Your task to perform on an android device: View the shopping cart on amazon. Add "logitech g pro" to the cart on amazon, then select checkout. Image 0: 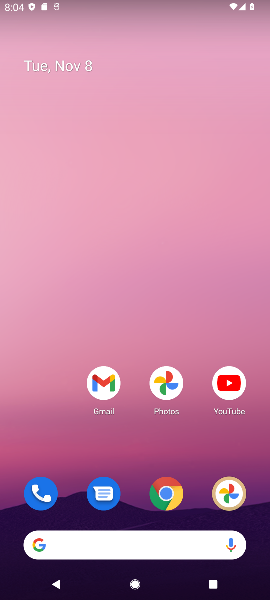
Step 0: click (165, 497)
Your task to perform on an android device: View the shopping cart on amazon. Add "logitech g pro" to the cart on amazon, then select checkout. Image 1: 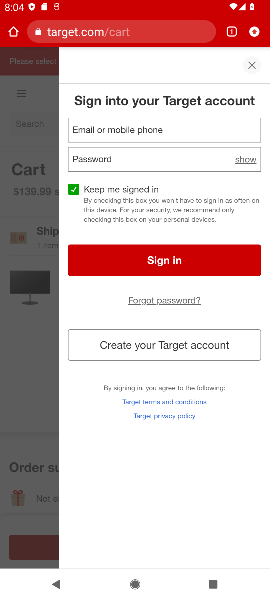
Step 1: click (83, 27)
Your task to perform on an android device: View the shopping cart on amazon. Add "logitech g pro" to the cart on amazon, then select checkout. Image 2: 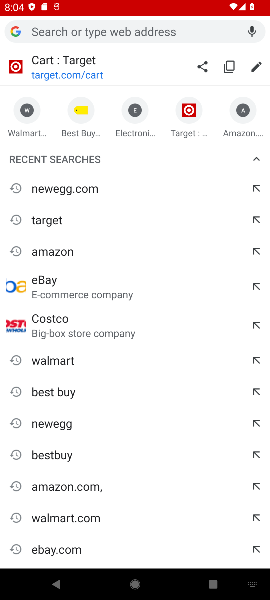
Step 2: click (239, 122)
Your task to perform on an android device: View the shopping cart on amazon. Add "logitech g pro" to the cart on amazon, then select checkout. Image 3: 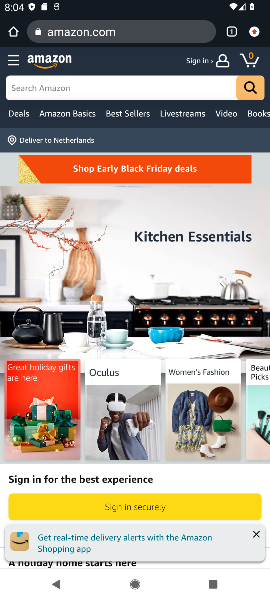
Step 3: click (247, 58)
Your task to perform on an android device: View the shopping cart on amazon. Add "logitech g pro" to the cart on amazon, then select checkout. Image 4: 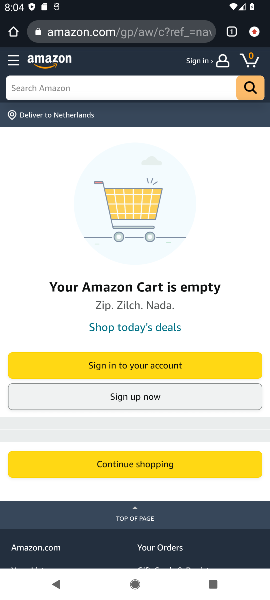
Step 4: click (110, 90)
Your task to perform on an android device: View the shopping cart on amazon. Add "logitech g pro" to the cart on amazon, then select checkout. Image 5: 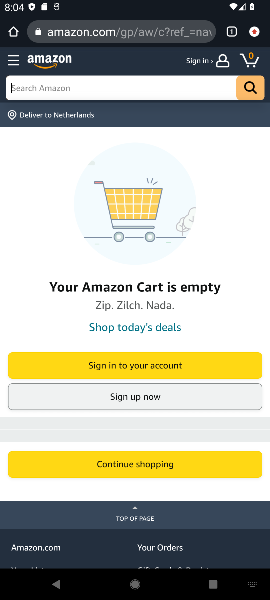
Step 5: type "logitech g pro"
Your task to perform on an android device: View the shopping cart on amazon. Add "logitech g pro" to the cart on amazon, then select checkout. Image 6: 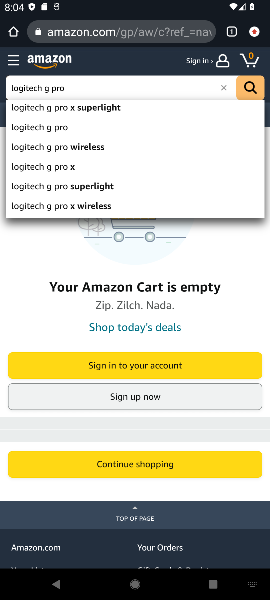
Step 6: click (53, 124)
Your task to perform on an android device: View the shopping cart on amazon. Add "logitech g pro" to the cart on amazon, then select checkout. Image 7: 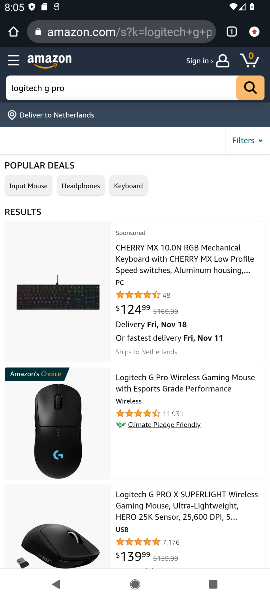
Step 7: click (80, 424)
Your task to perform on an android device: View the shopping cart on amazon. Add "logitech g pro" to the cart on amazon, then select checkout. Image 8: 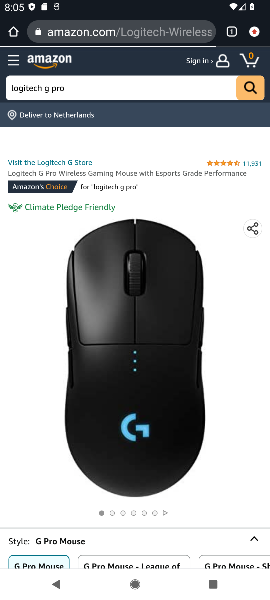
Step 8: drag from (134, 395) to (136, 204)
Your task to perform on an android device: View the shopping cart on amazon. Add "logitech g pro" to the cart on amazon, then select checkout. Image 9: 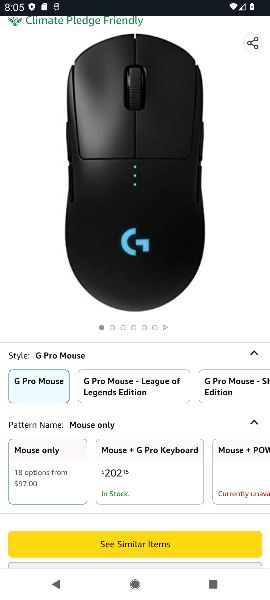
Step 9: press back button
Your task to perform on an android device: View the shopping cart on amazon. Add "logitech g pro" to the cart on amazon, then select checkout. Image 10: 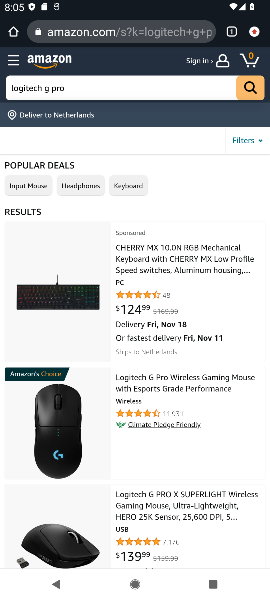
Step 10: drag from (142, 429) to (151, 267)
Your task to perform on an android device: View the shopping cart on amazon. Add "logitech g pro" to the cart on amazon, then select checkout. Image 11: 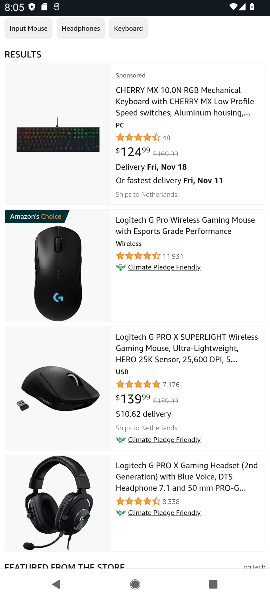
Step 11: click (60, 408)
Your task to perform on an android device: View the shopping cart on amazon. Add "logitech g pro" to the cart on amazon, then select checkout. Image 12: 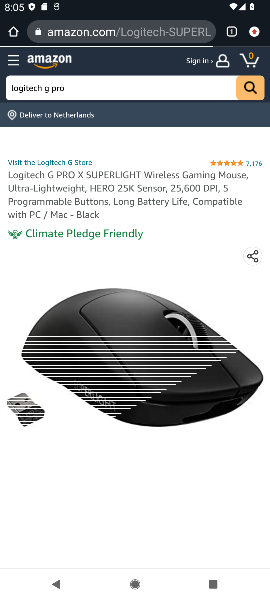
Step 12: drag from (95, 447) to (112, 277)
Your task to perform on an android device: View the shopping cart on amazon. Add "logitech g pro" to the cart on amazon, then select checkout. Image 13: 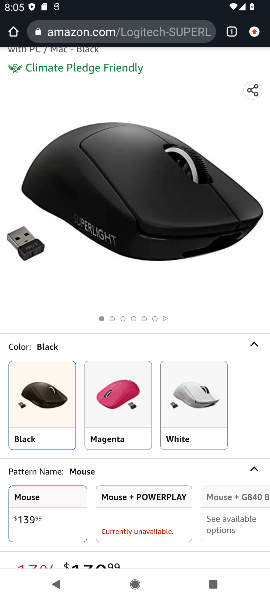
Step 13: drag from (113, 467) to (128, 251)
Your task to perform on an android device: View the shopping cart on amazon. Add "logitech g pro" to the cart on amazon, then select checkout. Image 14: 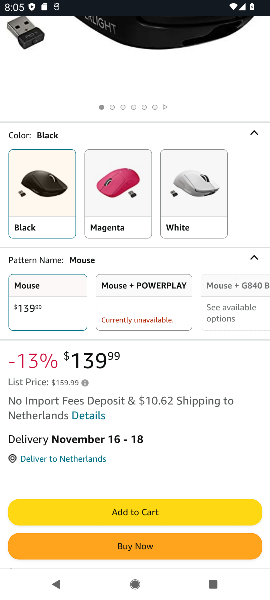
Step 14: click (124, 507)
Your task to perform on an android device: View the shopping cart on amazon. Add "logitech g pro" to the cart on amazon, then select checkout. Image 15: 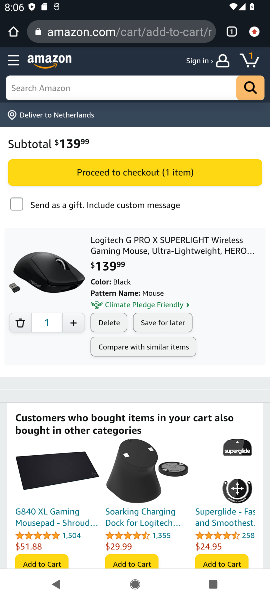
Step 15: click (125, 173)
Your task to perform on an android device: View the shopping cart on amazon. Add "logitech g pro" to the cart on amazon, then select checkout. Image 16: 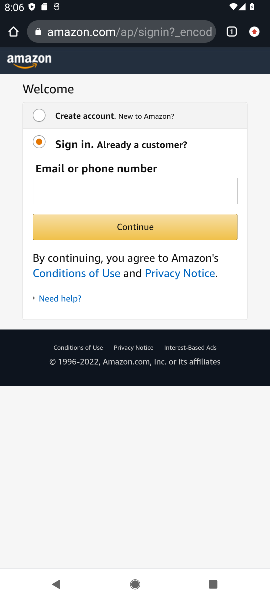
Step 16: task complete